Your task to perform on an android device: allow notifications from all sites in the chrome app Image 0: 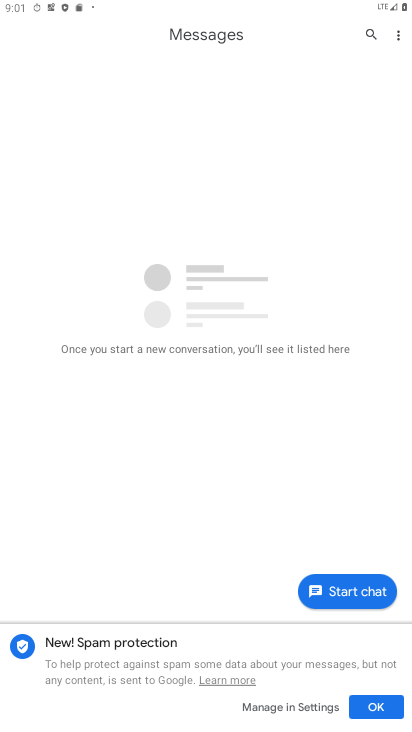
Step 0: press home button
Your task to perform on an android device: allow notifications from all sites in the chrome app Image 1: 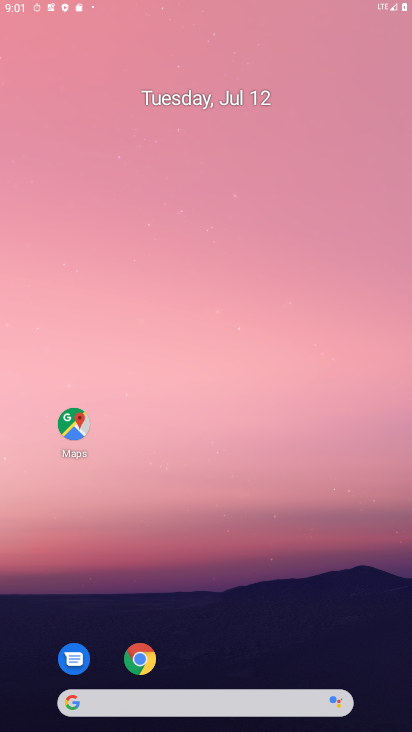
Step 1: drag from (374, 665) to (161, 33)
Your task to perform on an android device: allow notifications from all sites in the chrome app Image 2: 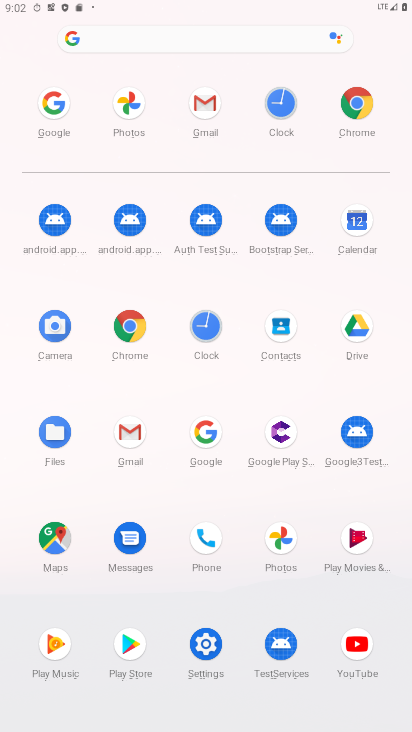
Step 2: click (129, 315)
Your task to perform on an android device: allow notifications from all sites in the chrome app Image 3: 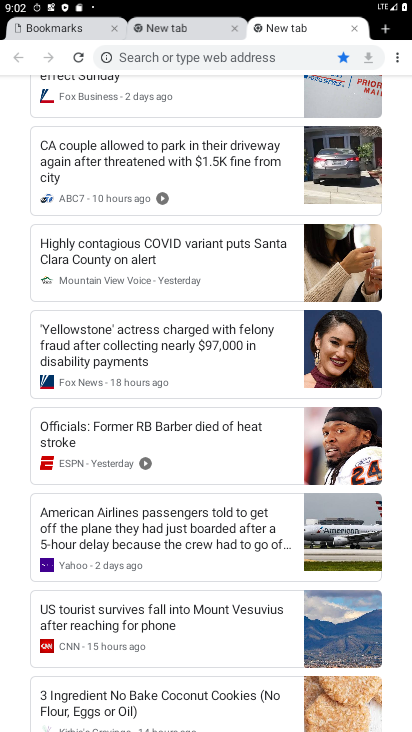
Step 3: click (397, 51)
Your task to perform on an android device: allow notifications from all sites in the chrome app Image 4: 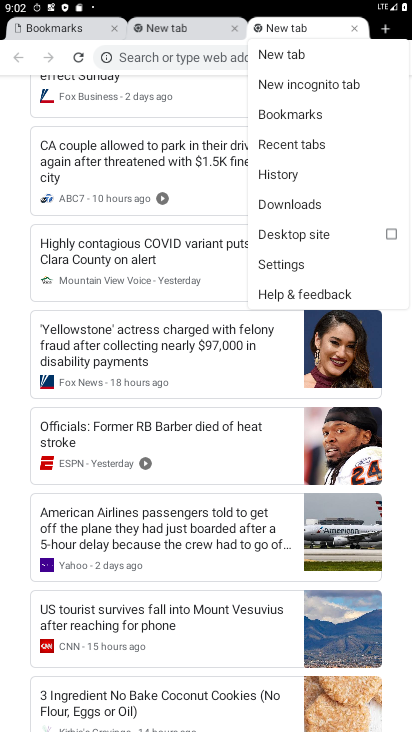
Step 4: click (273, 268)
Your task to perform on an android device: allow notifications from all sites in the chrome app Image 5: 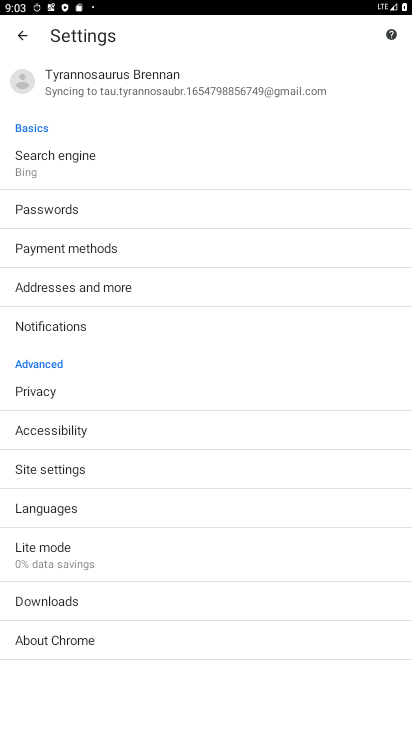
Step 5: click (29, 327)
Your task to perform on an android device: allow notifications from all sites in the chrome app Image 6: 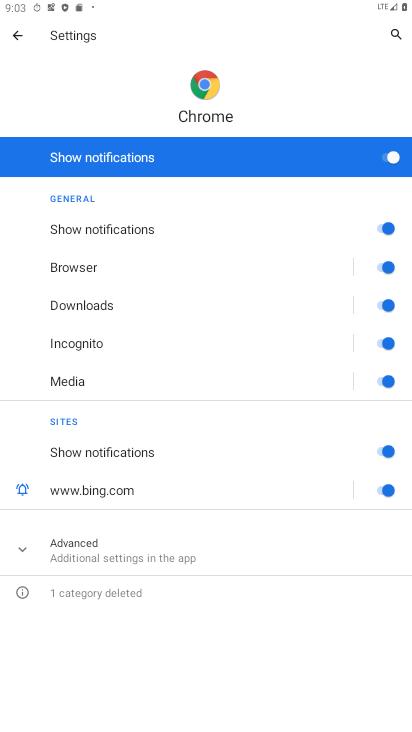
Step 6: task complete